Your task to perform on an android device: Open Youtube and go to the subscriptions tab Image 0: 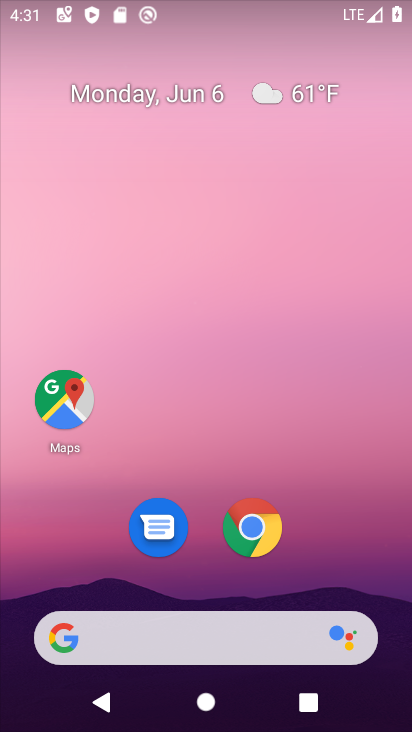
Step 0: drag from (346, 493) to (409, 263)
Your task to perform on an android device: Open Youtube and go to the subscriptions tab Image 1: 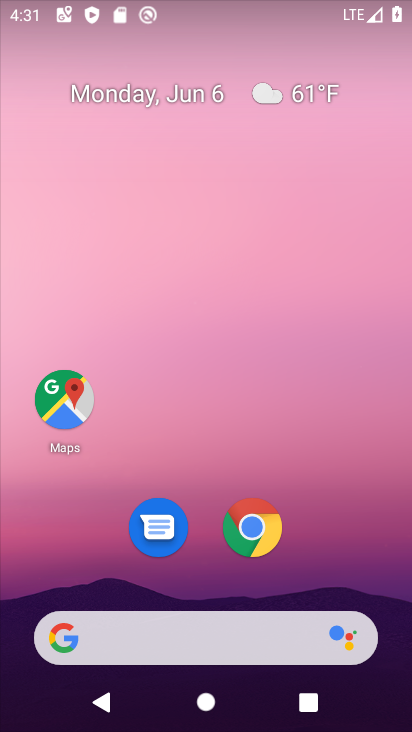
Step 1: drag from (330, 536) to (395, 316)
Your task to perform on an android device: Open Youtube and go to the subscriptions tab Image 2: 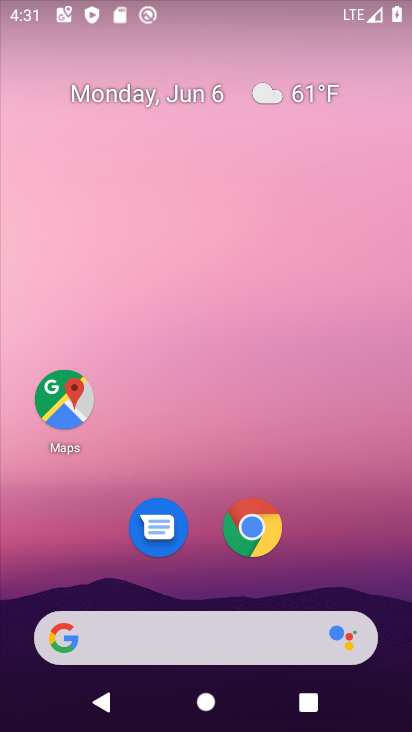
Step 2: drag from (308, 433) to (352, 148)
Your task to perform on an android device: Open Youtube and go to the subscriptions tab Image 3: 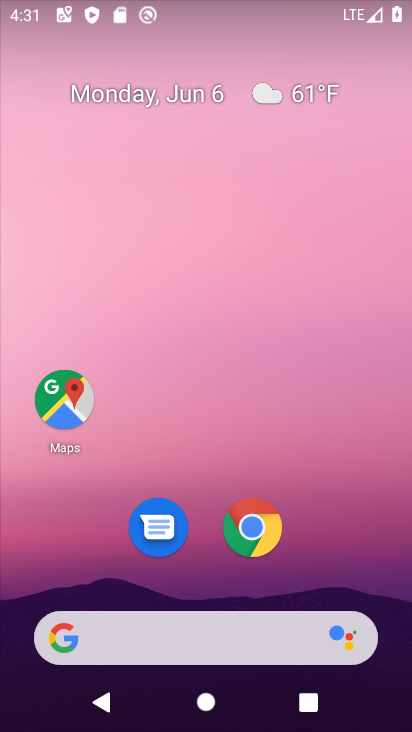
Step 3: drag from (325, 555) to (390, 127)
Your task to perform on an android device: Open Youtube and go to the subscriptions tab Image 4: 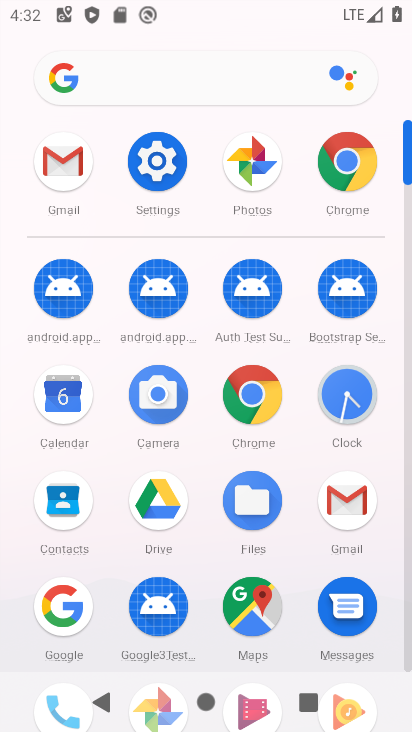
Step 4: click (404, 319)
Your task to perform on an android device: Open Youtube and go to the subscriptions tab Image 5: 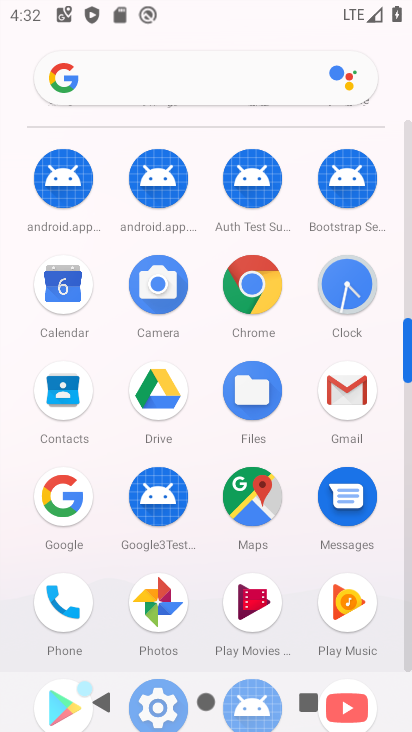
Step 5: click (405, 405)
Your task to perform on an android device: Open Youtube and go to the subscriptions tab Image 6: 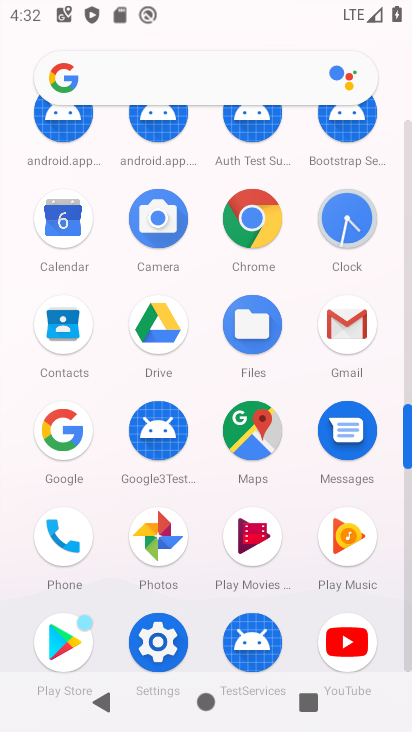
Step 6: click (407, 508)
Your task to perform on an android device: Open Youtube and go to the subscriptions tab Image 7: 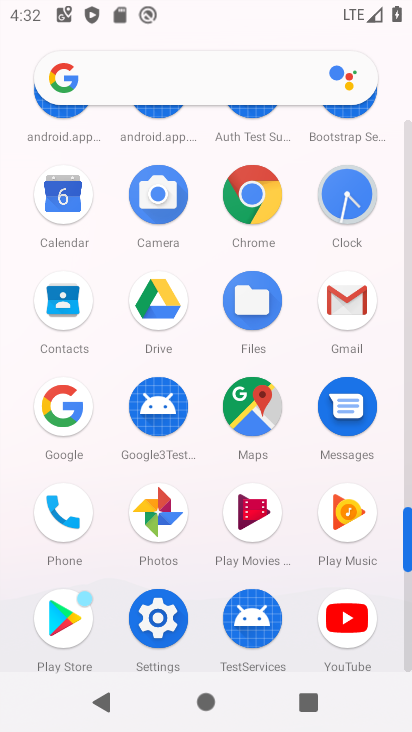
Step 7: click (351, 614)
Your task to perform on an android device: Open Youtube and go to the subscriptions tab Image 8: 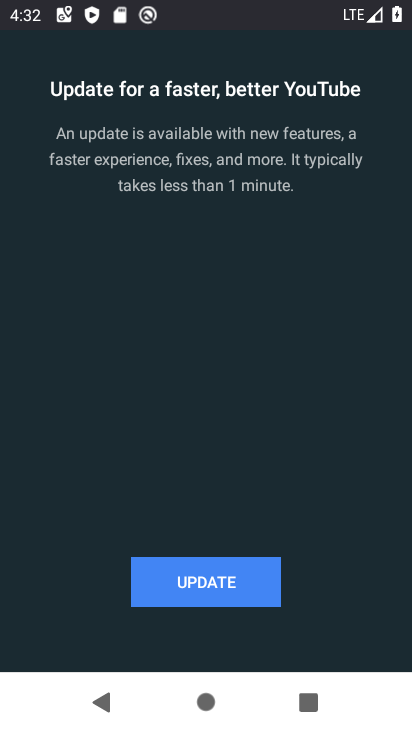
Step 8: click (248, 582)
Your task to perform on an android device: Open Youtube and go to the subscriptions tab Image 9: 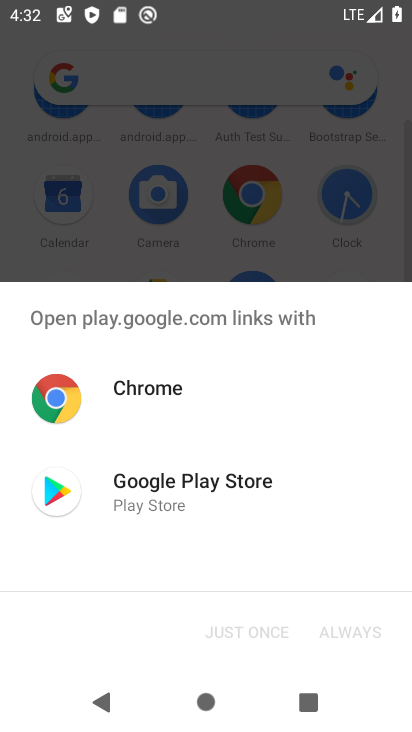
Step 9: click (173, 486)
Your task to perform on an android device: Open Youtube and go to the subscriptions tab Image 10: 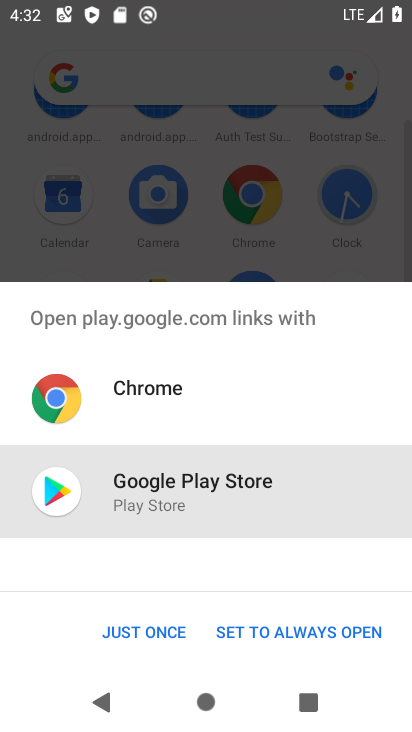
Step 10: click (294, 625)
Your task to perform on an android device: Open Youtube and go to the subscriptions tab Image 11: 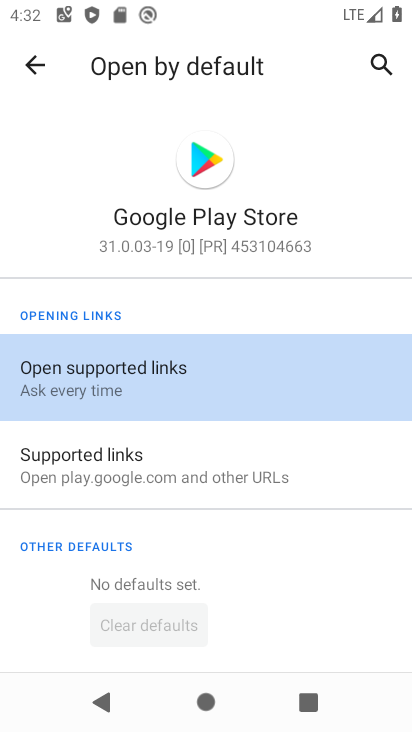
Step 11: click (27, 47)
Your task to perform on an android device: Open Youtube and go to the subscriptions tab Image 12: 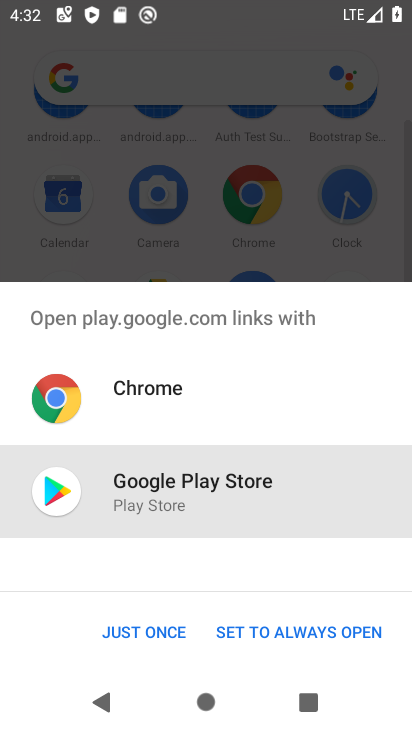
Step 12: click (147, 635)
Your task to perform on an android device: Open Youtube and go to the subscriptions tab Image 13: 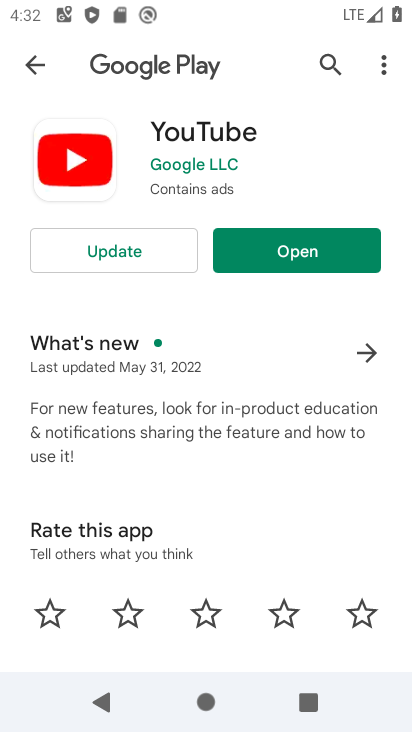
Step 13: click (127, 245)
Your task to perform on an android device: Open Youtube and go to the subscriptions tab Image 14: 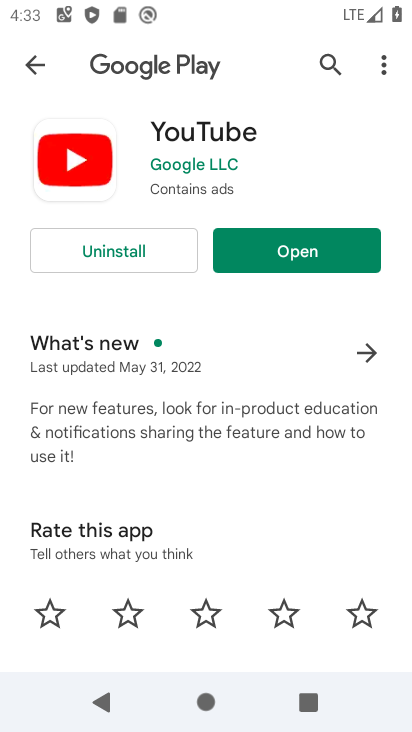
Step 14: click (272, 245)
Your task to perform on an android device: Open Youtube and go to the subscriptions tab Image 15: 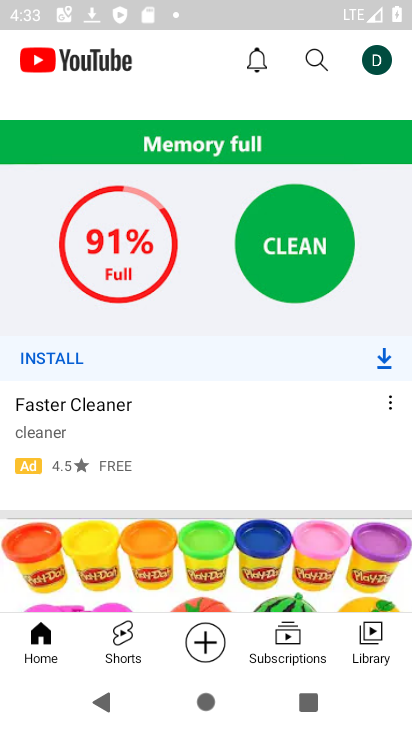
Step 15: click (286, 638)
Your task to perform on an android device: Open Youtube and go to the subscriptions tab Image 16: 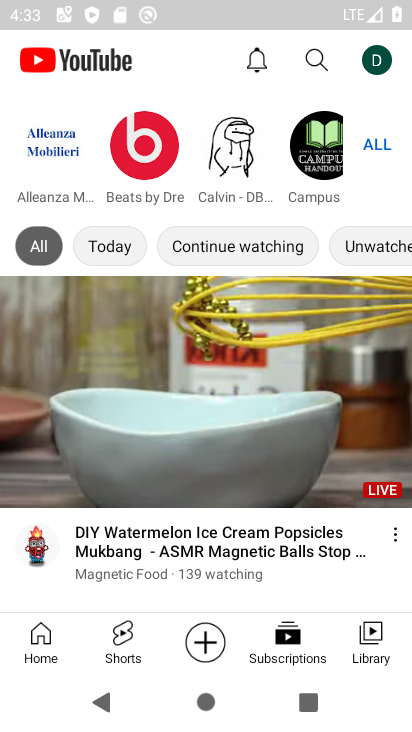
Step 16: task complete